Your task to perform on an android device: Go to Google maps Image 0: 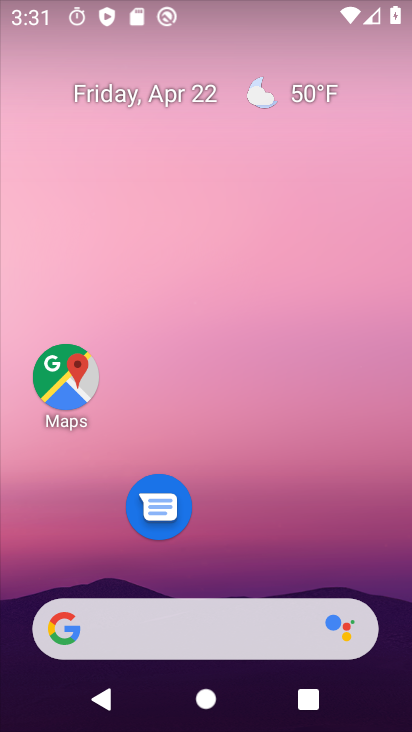
Step 0: click (67, 388)
Your task to perform on an android device: Go to Google maps Image 1: 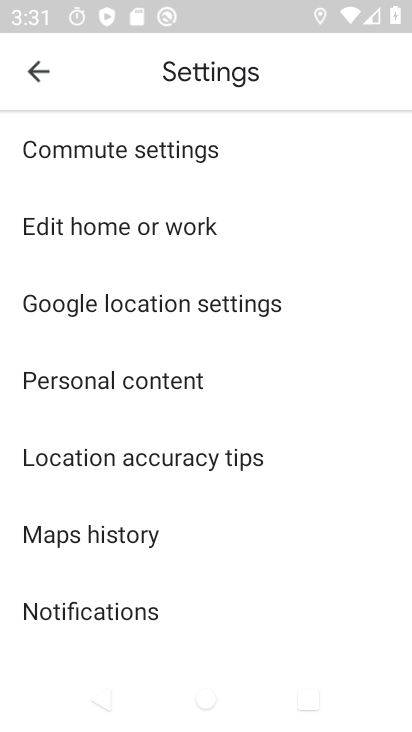
Step 1: task complete